Your task to perform on an android device: open app "Instagram" (install if not already installed), go to login, and select forgot password Image 0: 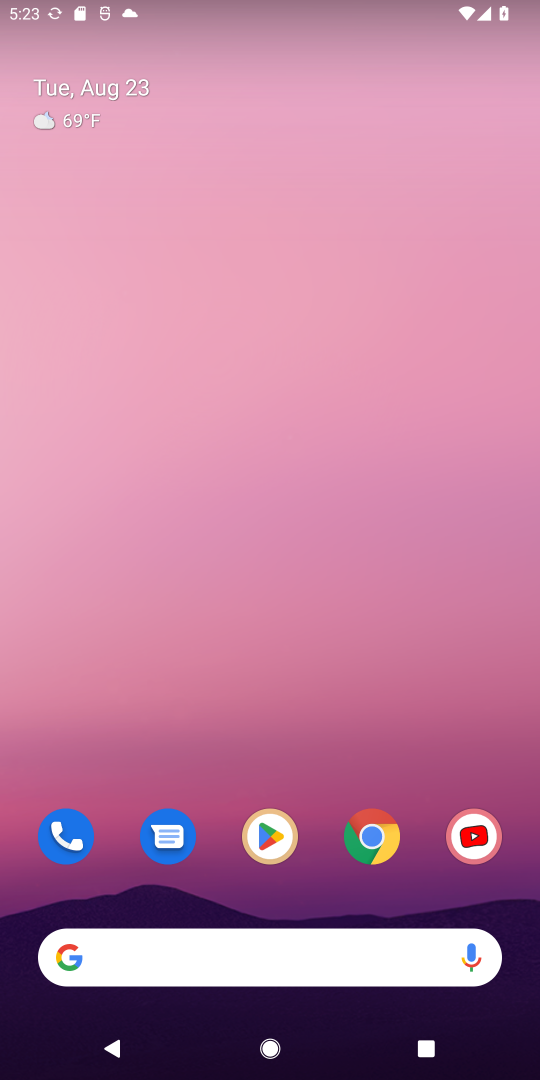
Step 0: click (268, 835)
Your task to perform on an android device: open app "Instagram" (install if not already installed), go to login, and select forgot password Image 1: 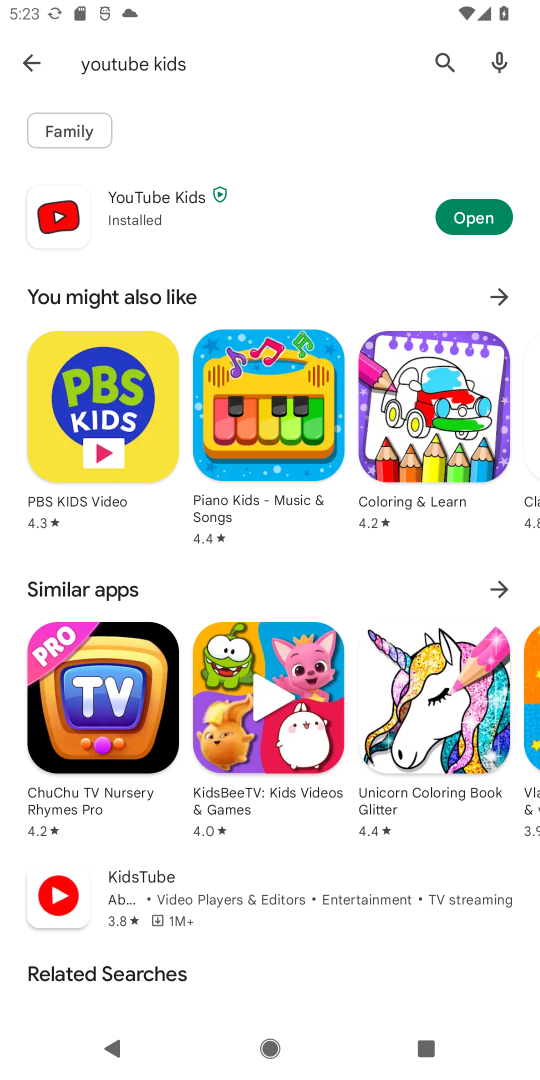
Step 1: click (438, 57)
Your task to perform on an android device: open app "Instagram" (install if not already installed), go to login, and select forgot password Image 2: 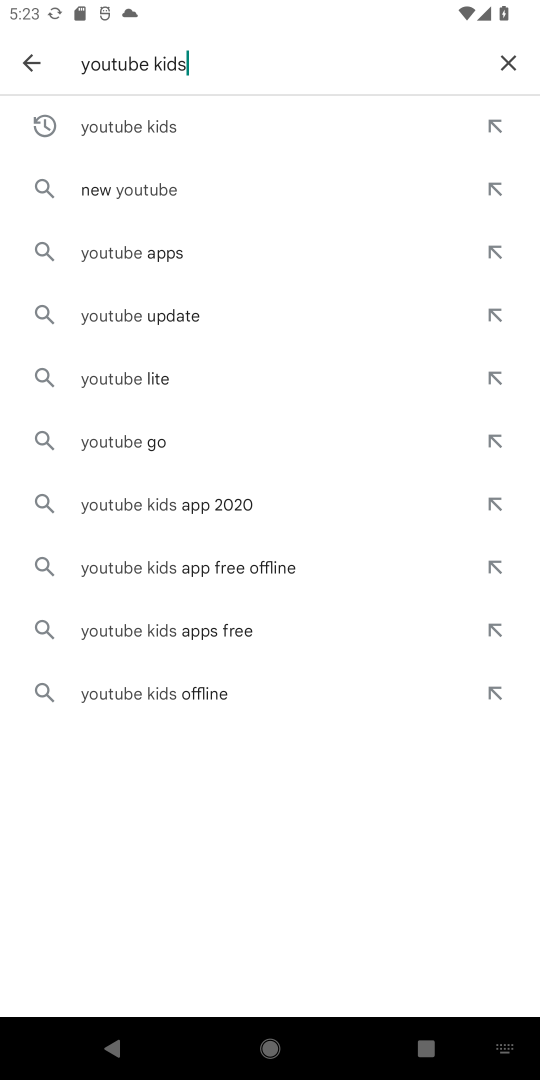
Step 2: click (511, 52)
Your task to perform on an android device: open app "Instagram" (install if not already installed), go to login, and select forgot password Image 3: 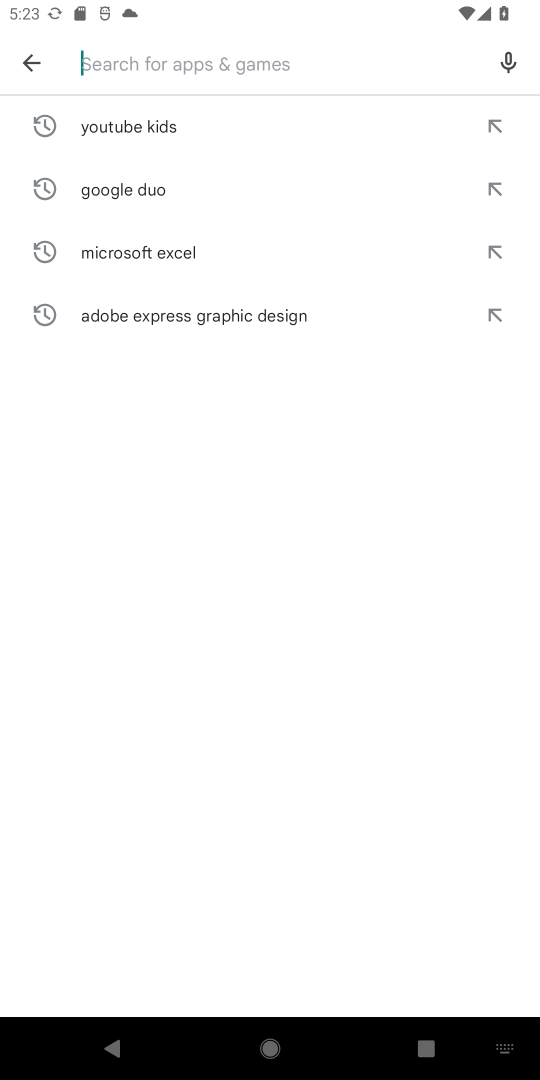
Step 3: type "Instagram"
Your task to perform on an android device: open app "Instagram" (install if not already installed), go to login, and select forgot password Image 4: 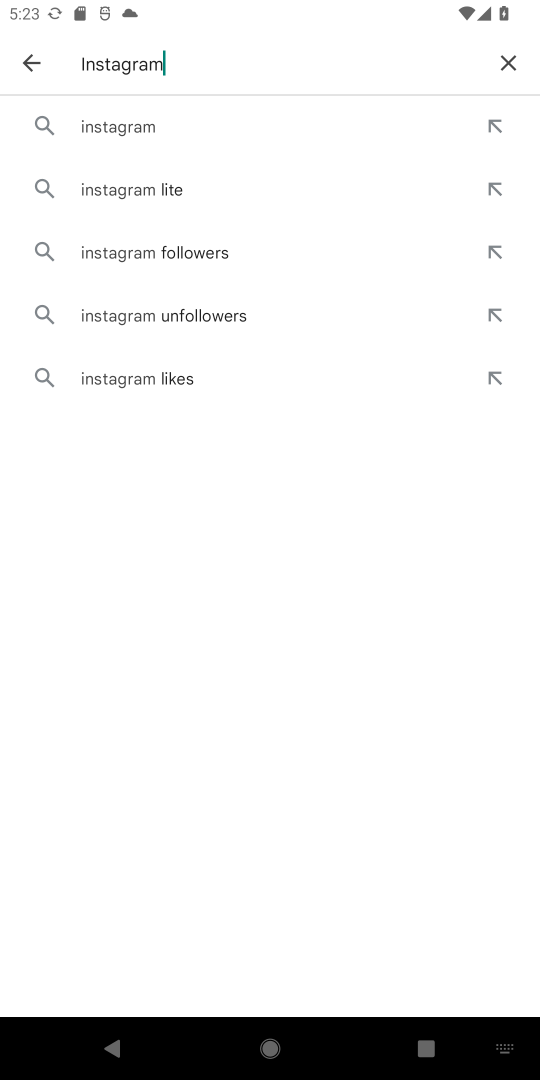
Step 4: click (108, 117)
Your task to perform on an android device: open app "Instagram" (install if not already installed), go to login, and select forgot password Image 5: 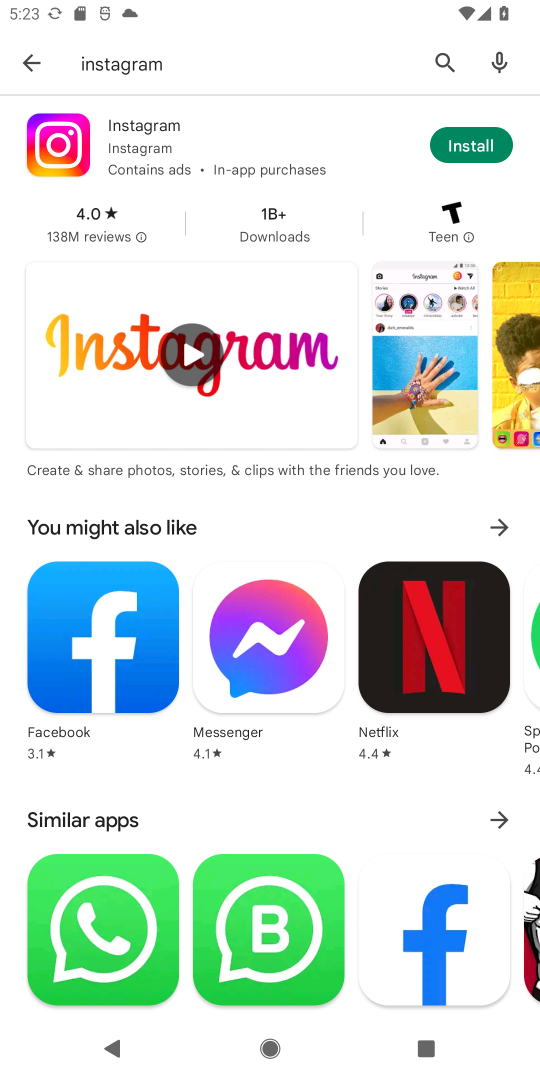
Step 5: click (466, 150)
Your task to perform on an android device: open app "Instagram" (install if not already installed), go to login, and select forgot password Image 6: 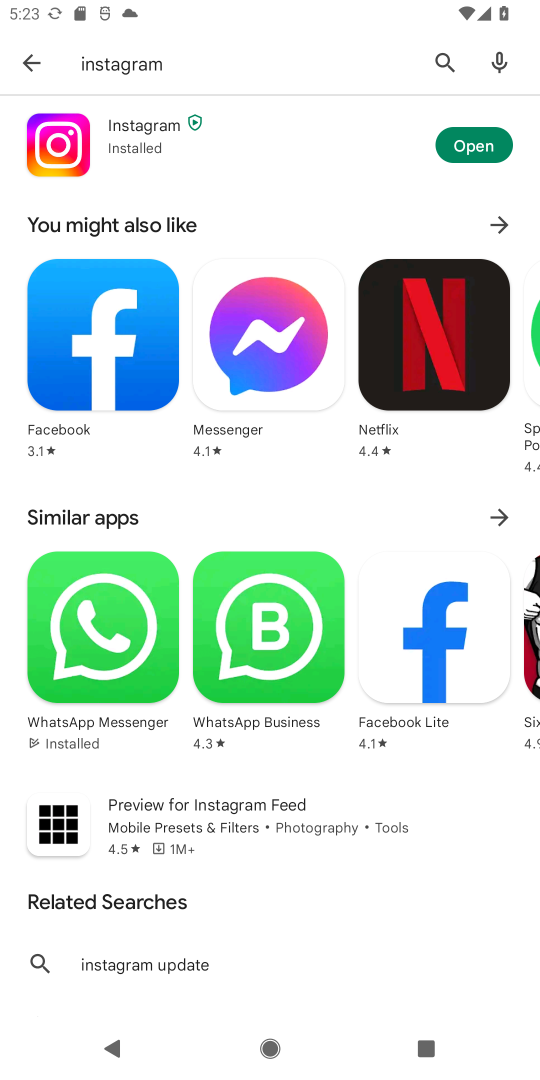
Step 6: click (474, 145)
Your task to perform on an android device: open app "Instagram" (install if not already installed), go to login, and select forgot password Image 7: 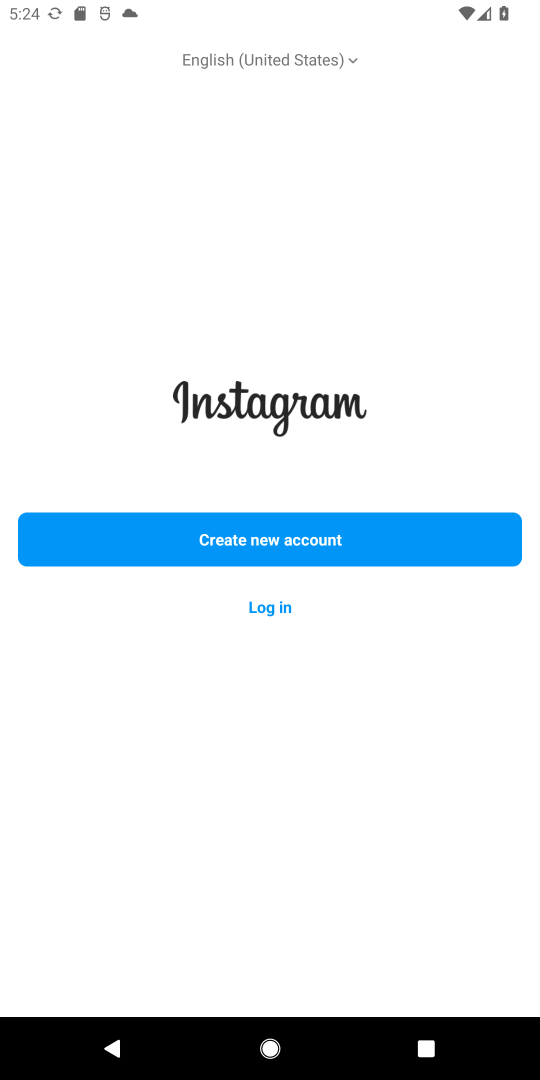
Step 7: click (275, 609)
Your task to perform on an android device: open app "Instagram" (install if not already installed), go to login, and select forgot password Image 8: 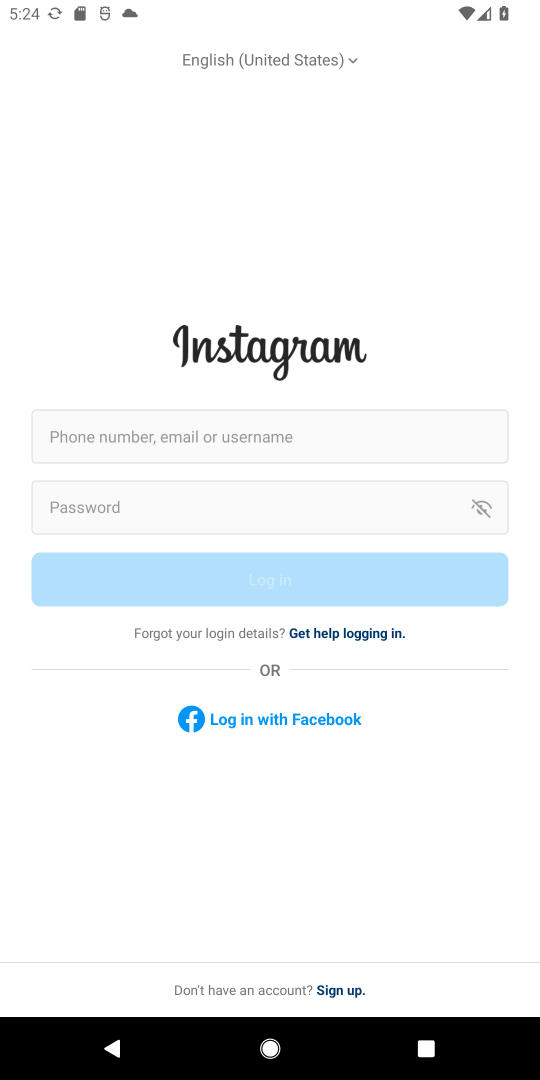
Step 8: click (320, 633)
Your task to perform on an android device: open app "Instagram" (install if not already installed), go to login, and select forgot password Image 9: 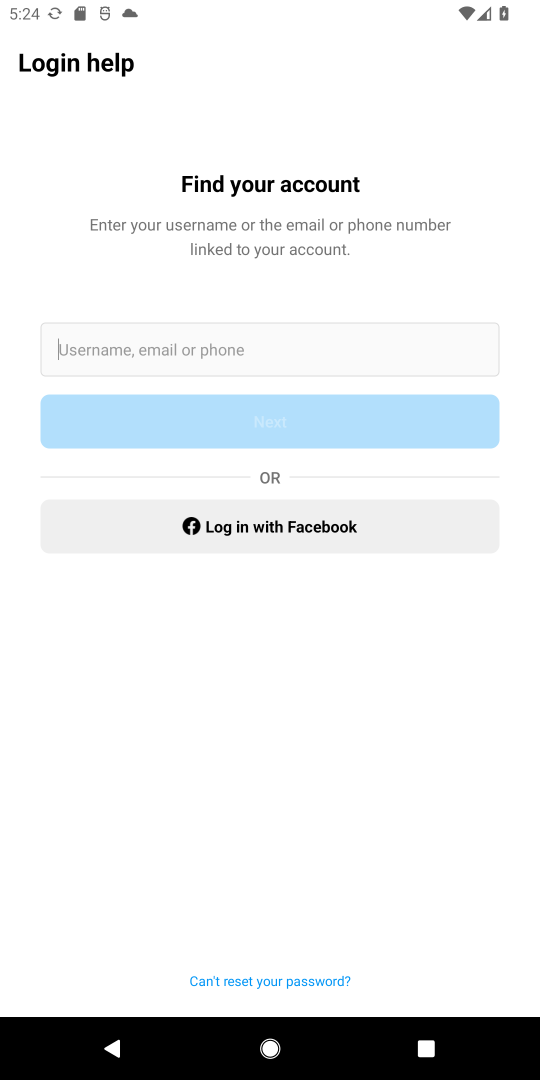
Step 9: task complete